Your task to perform on an android device: Is it going to rain tomorrow? Image 0: 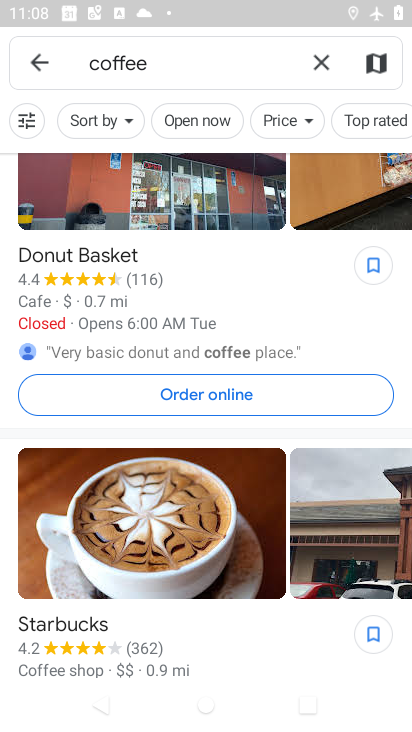
Step 0: press home button
Your task to perform on an android device: Is it going to rain tomorrow? Image 1: 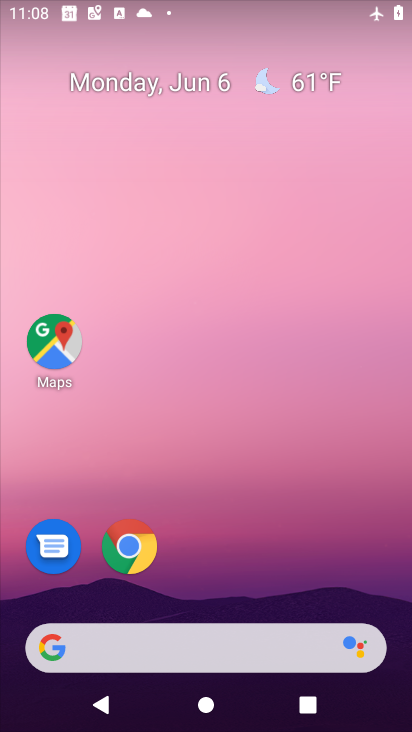
Step 1: click (302, 79)
Your task to perform on an android device: Is it going to rain tomorrow? Image 2: 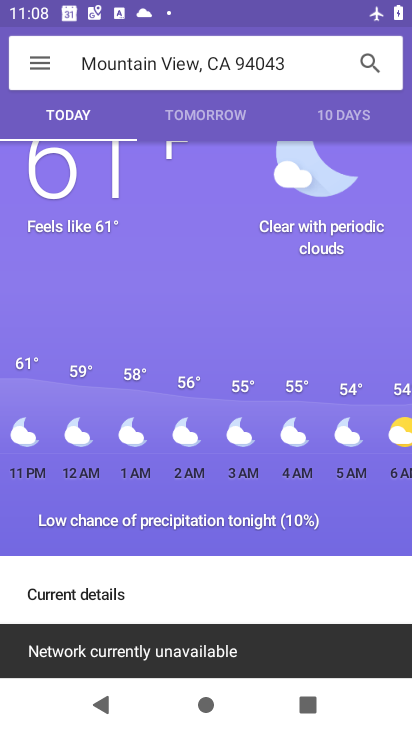
Step 2: click (218, 117)
Your task to perform on an android device: Is it going to rain tomorrow? Image 3: 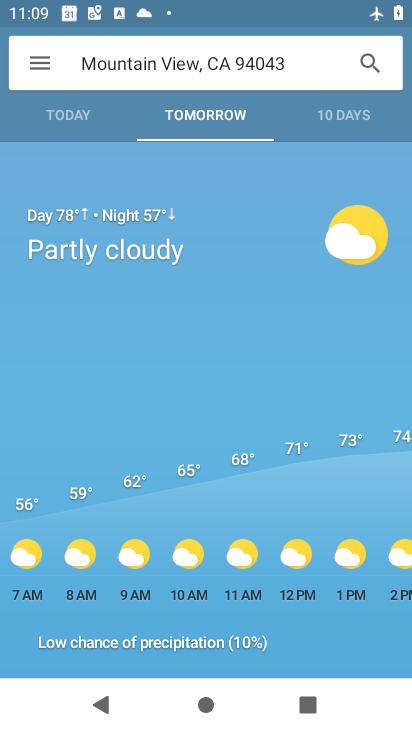
Step 3: task complete